Your task to perform on an android device: add a label to a message in the gmail app Image 0: 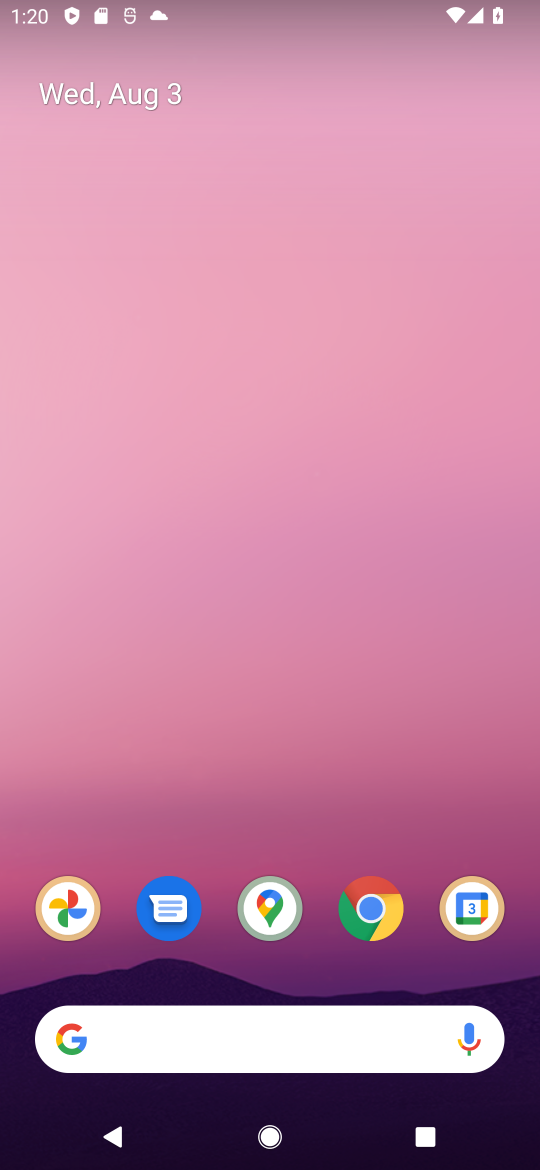
Step 0: drag from (299, 968) to (279, 181)
Your task to perform on an android device: add a label to a message in the gmail app Image 1: 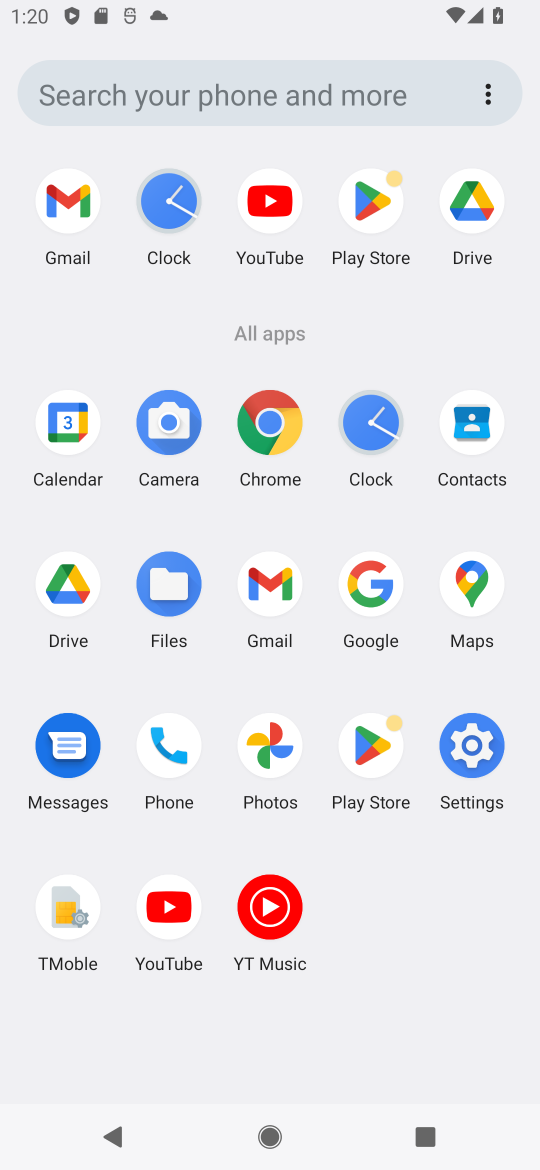
Step 1: click (69, 198)
Your task to perform on an android device: add a label to a message in the gmail app Image 2: 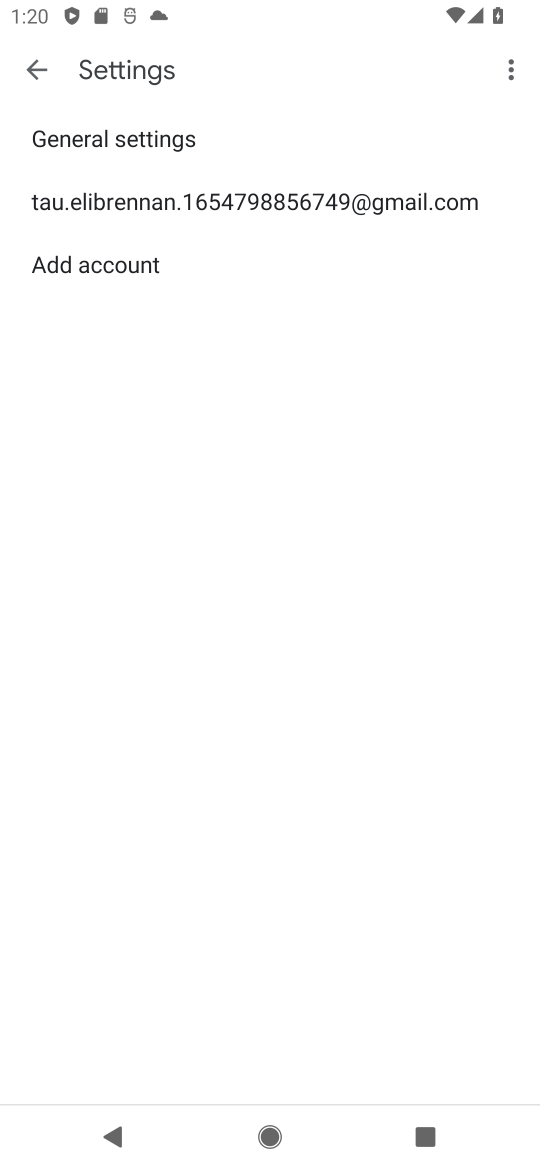
Step 2: click (26, 85)
Your task to perform on an android device: add a label to a message in the gmail app Image 3: 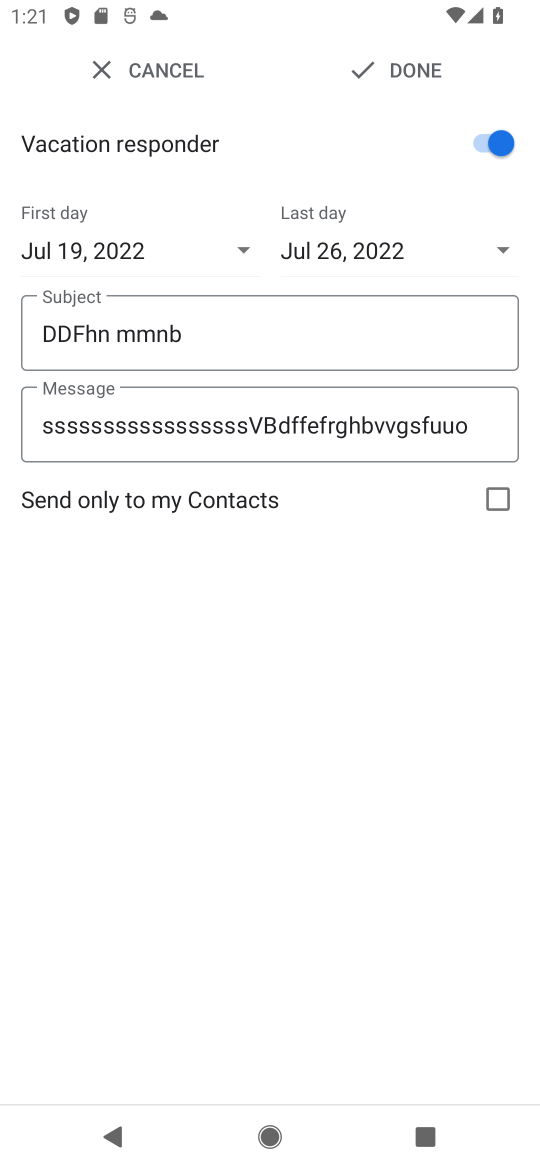
Step 3: press back button
Your task to perform on an android device: add a label to a message in the gmail app Image 4: 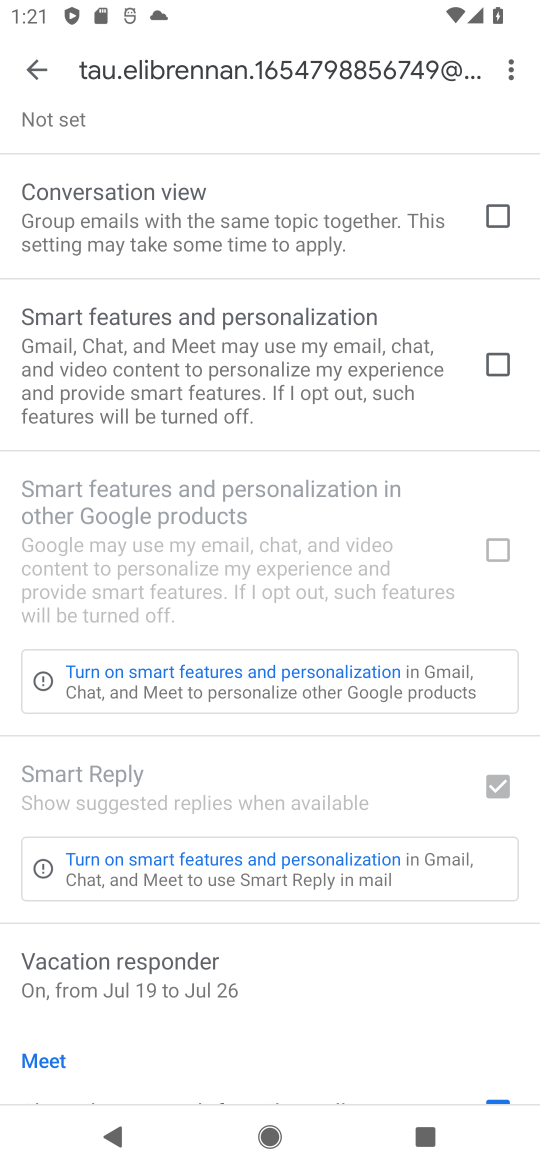
Step 4: press back button
Your task to perform on an android device: add a label to a message in the gmail app Image 5: 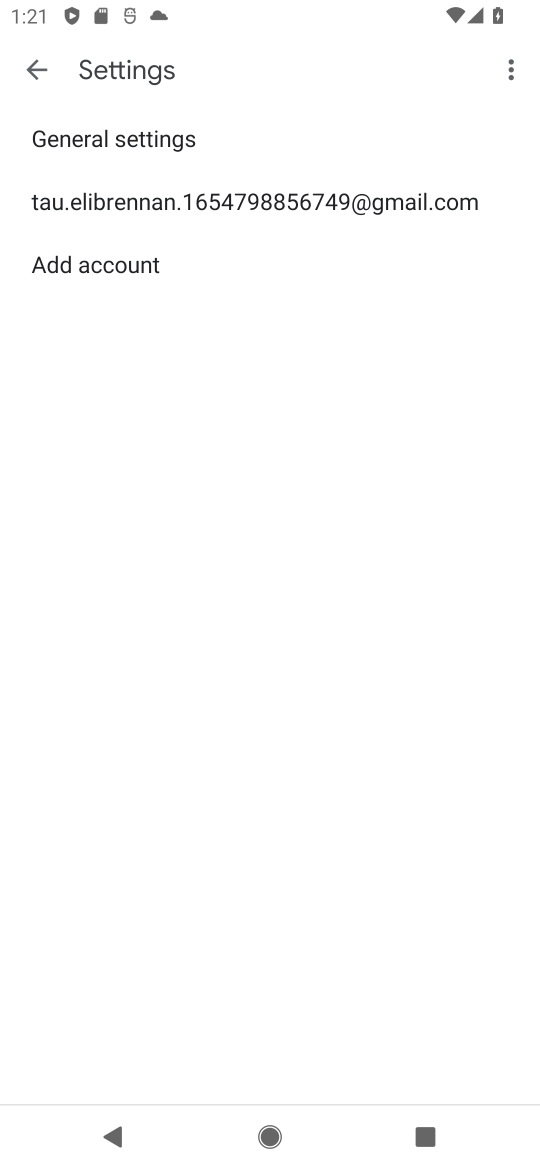
Step 5: press back button
Your task to perform on an android device: add a label to a message in the gmail app Image 6: 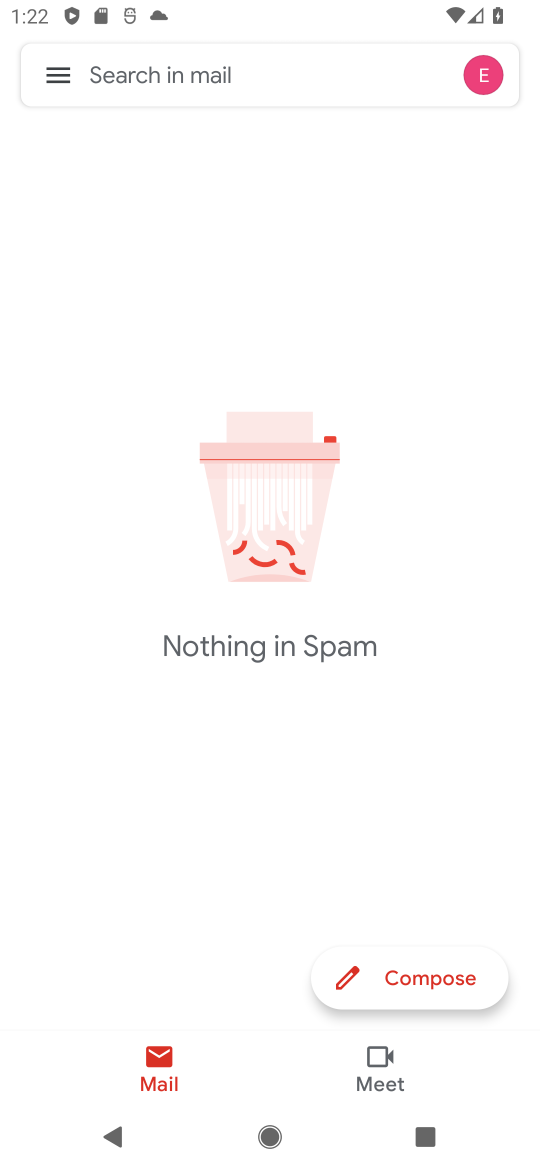
Step 6: click (60, 72)
Your task to perform on an android device: add a label to a message in the gmail app Image 7: 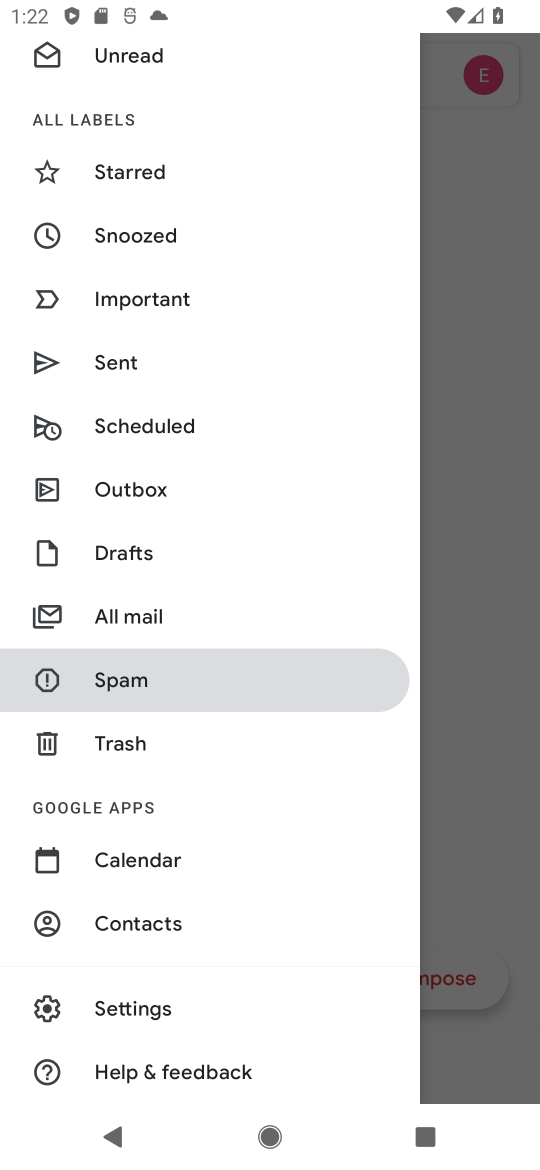
Step 7: click (160, 599)
Your task to perform on an android device: add a label to a message in the gmail app Image 8: 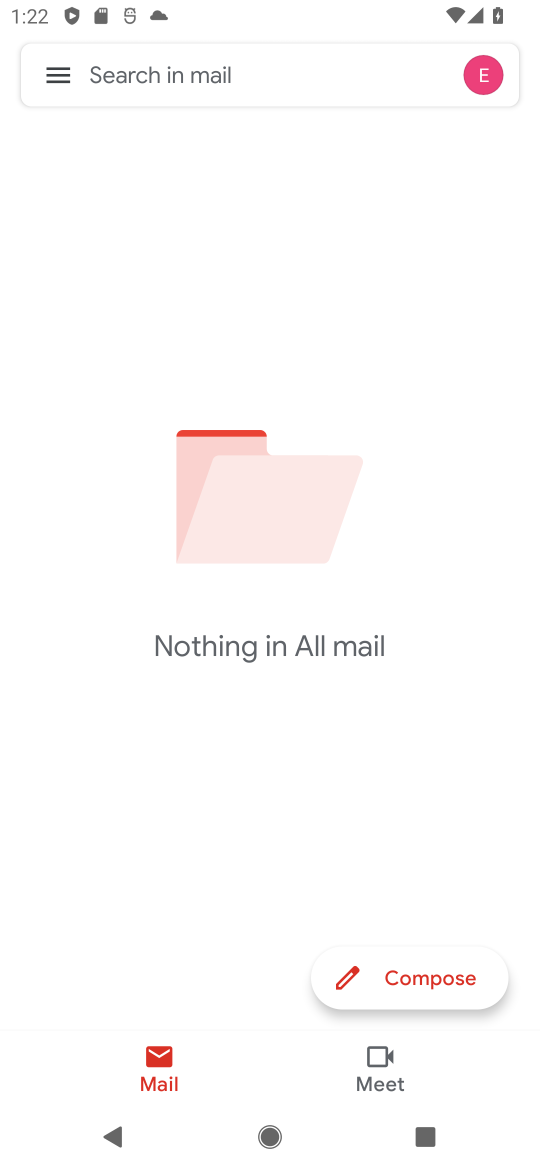
Step 8: task complete